Your task to perform on an android device: turn on priority inbox in the gmail app Image 0: 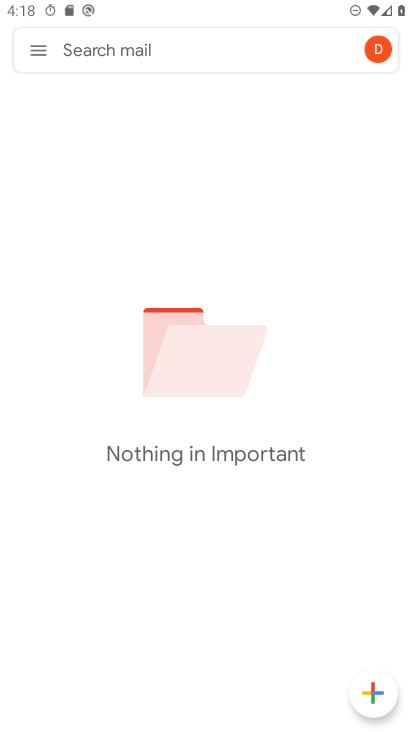
Step 0: press home button
Your task to perform on an android device: turn on priority inbox in the gmail app Image 1: 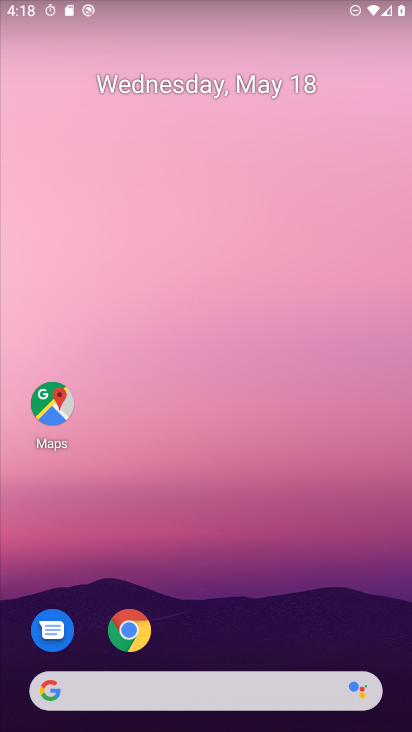
Step 1: drag from (211, 642) to (258, 47)
Your task to perform on an android device: turn on priority inbox in the gmail app Image 2: 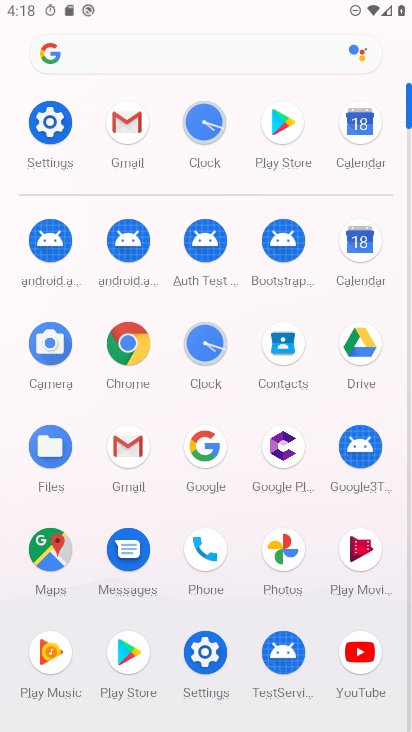
Step 2: click (127, 113)
Your task to perform on an android device: turn on priority inbox in the gmail app Image 3: 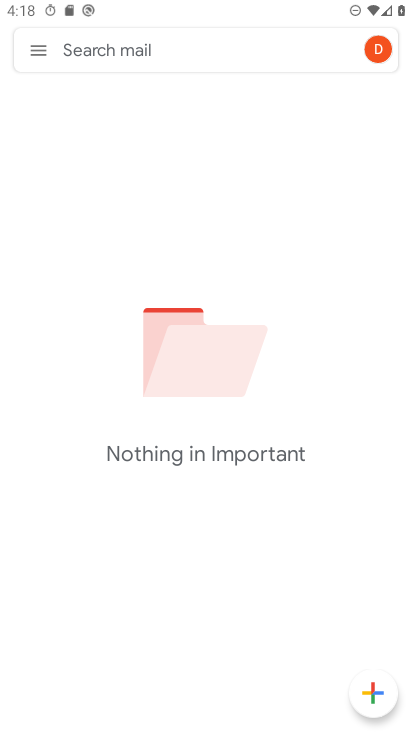
Step 3: click (33, 40)
Your task to perform on an android device: turn on priority inbox in the gmail app Image 4: 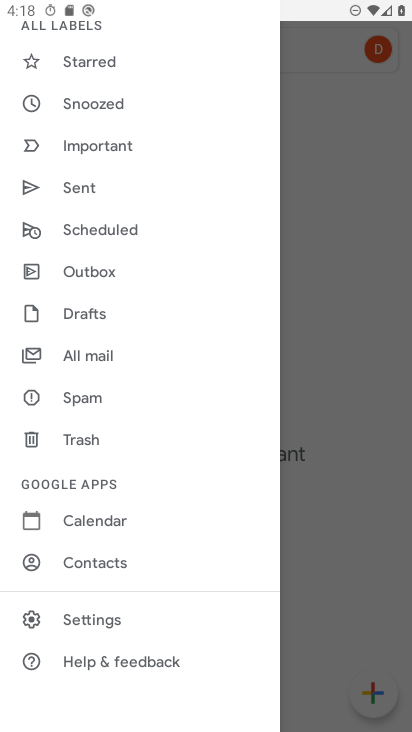
Step 4: click (127, 615)
Your task to perform on an android device: turn on priority inbox in the gmail app Image 5: 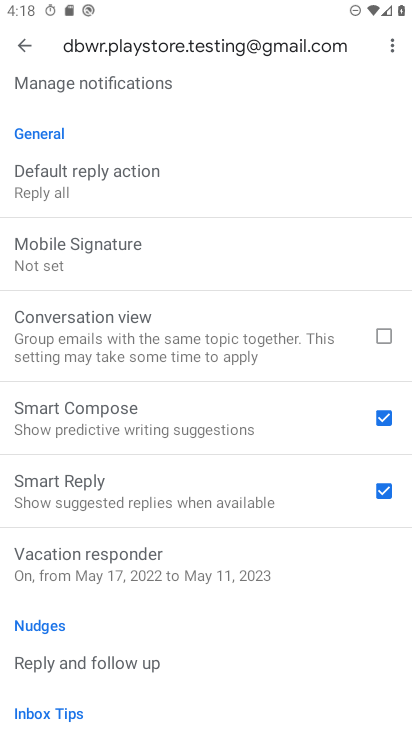
Step 5: drag from (123, 150) to (183, 731)
Your task to perform on an android device: turn on priority inbox in the gmail app Image 6: 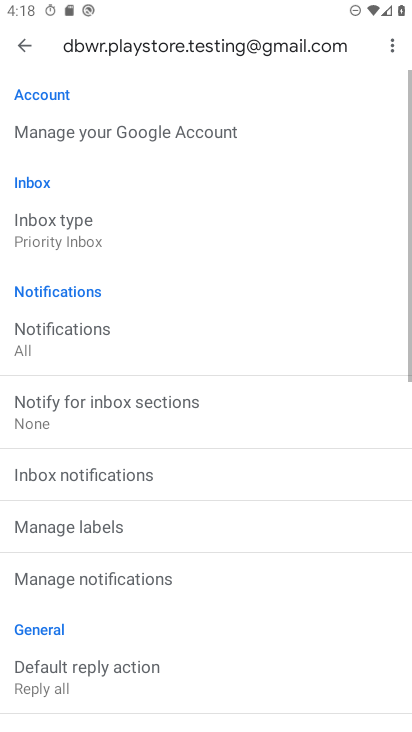
Step 6: click (110, 220)
Your task to perform on an android device: turn on priority inbox in the gmail app Image 7: 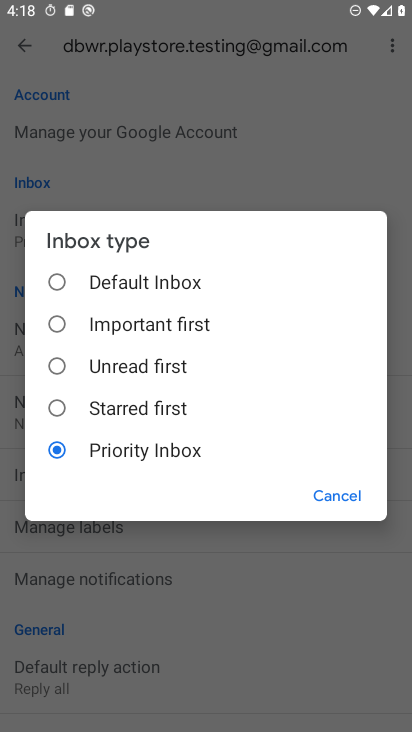
Step 7: task complete